Your task to perform on an android device: Open settings on Google Maps Image 0: 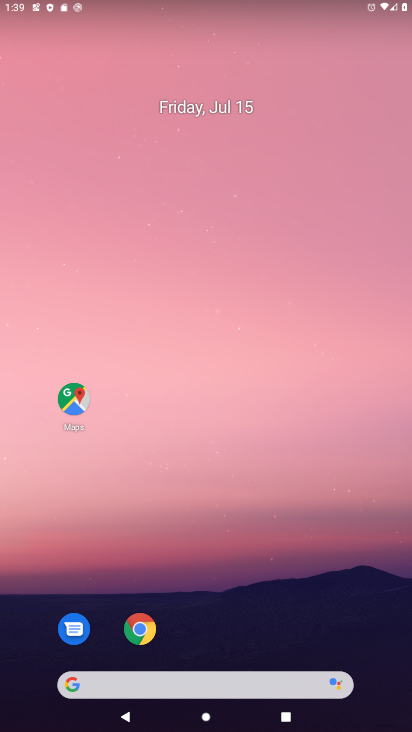
Step 0: drag from (341, 574) to (324, 187)
Your task to perform on an android device: Open settings on Google Maps Image 1: 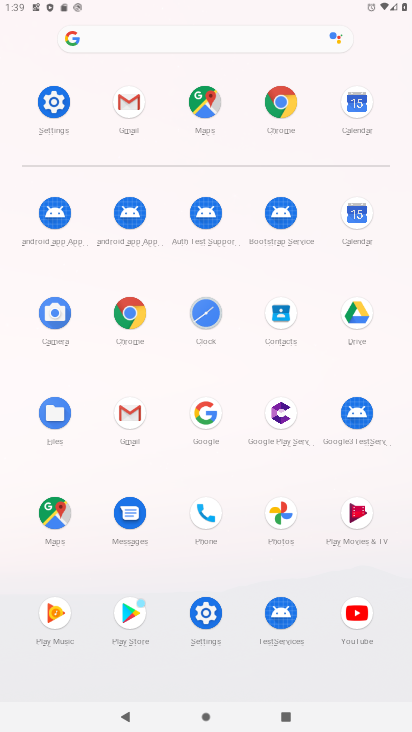
Step 1: click (56, 512)
Your task to perform on an android device: Open settings on Google Maps Image 2: 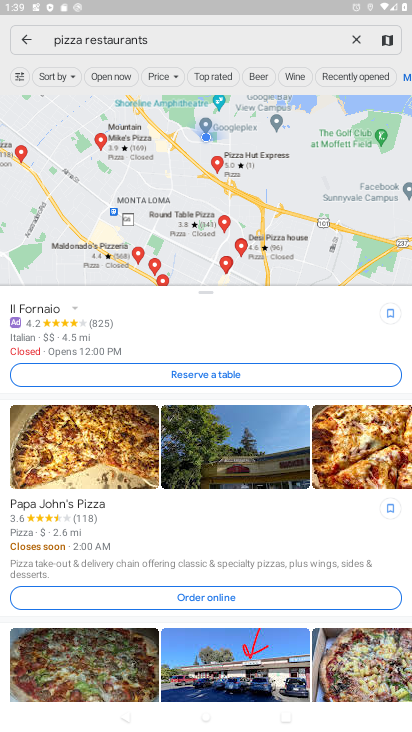
Step 2: press back button
Your task to perform on an android device: Open settings on Google Maps Image 3: 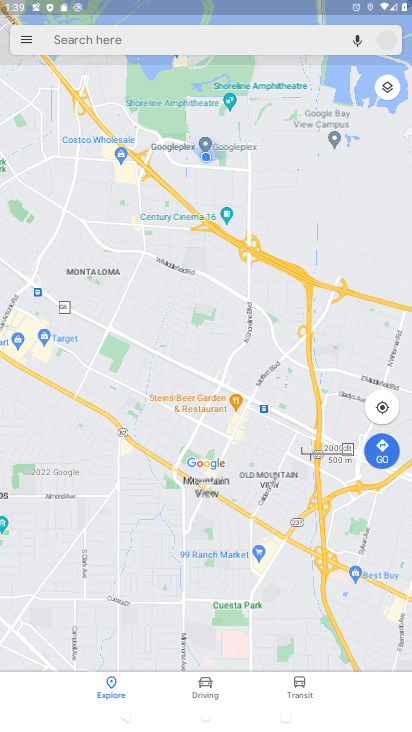
Step 3: click (29, 37)
Your task to perform on an android device: Open settings on Google Maps Image 4: 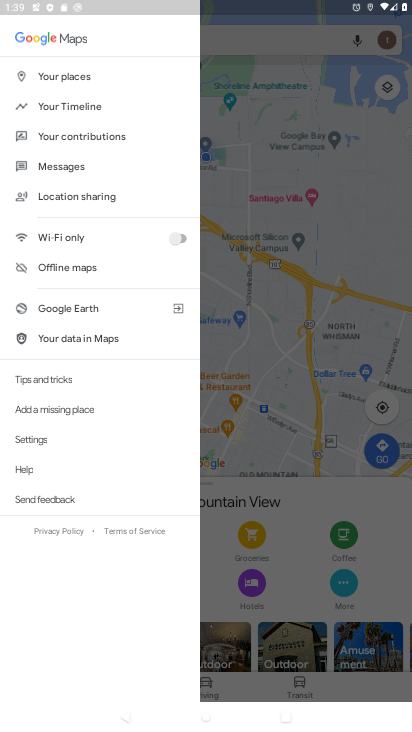
Step 4: click (39, 449)
Your task to perform on an android device: Open settings on Google Maps Image 5: 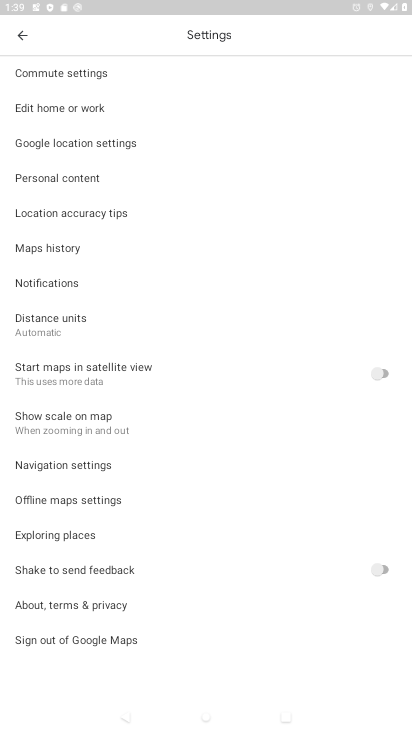
Step 5: task complete